Your task to perform on an android device: install app "Google Translate" Image 0: 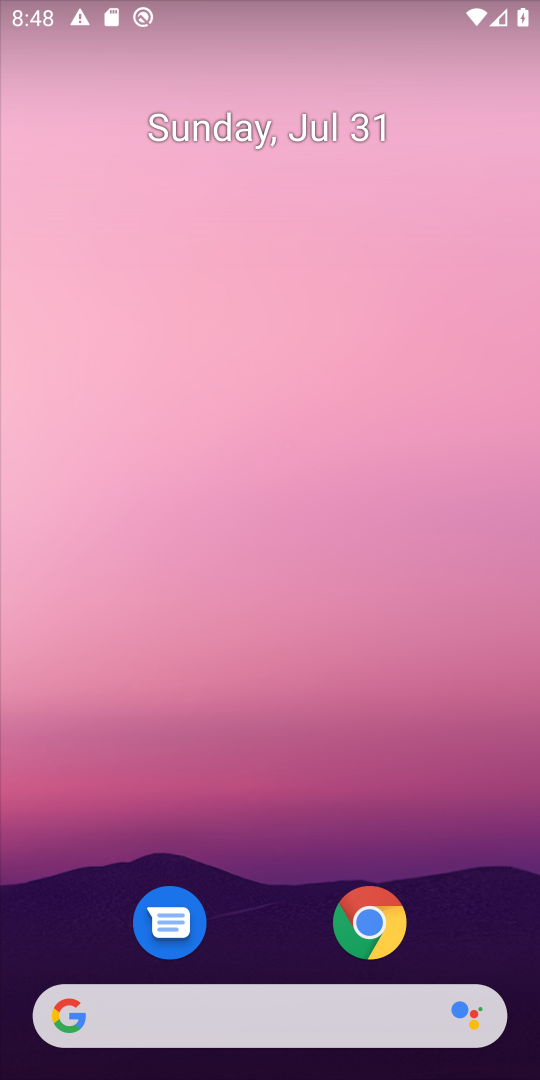
Step 0: drag from (270, 775) to (270, 89)
Your task to perform on an android device: install app "Google Translate" Image 1: 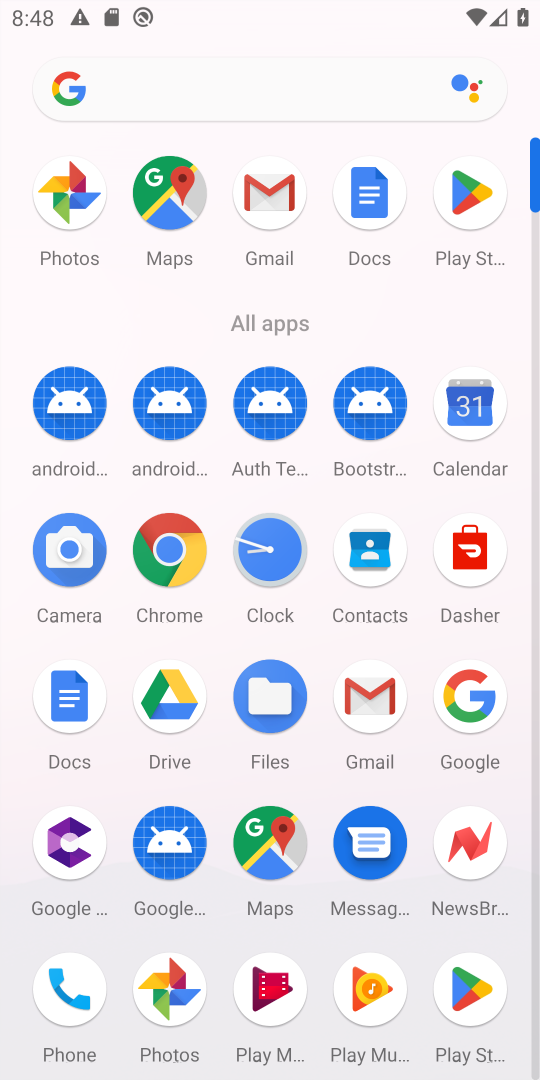
Step 1: click (478, 983)
Your task to perform on an android device: install app "Google Translate" Image 2: 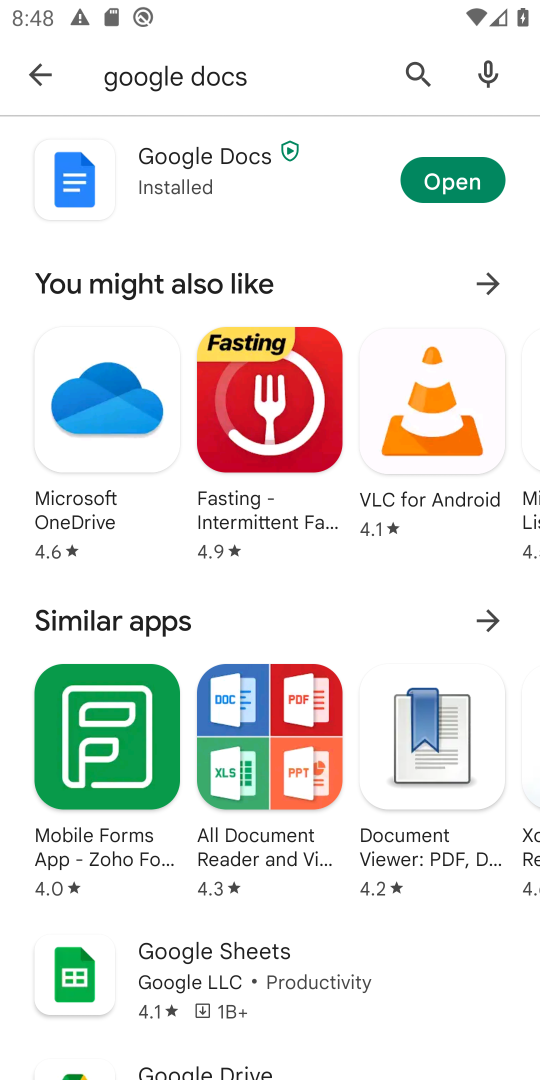
Step 2: task complete